Your task to perform on an android device: Open calendar and show me the first week of next month Image 0: 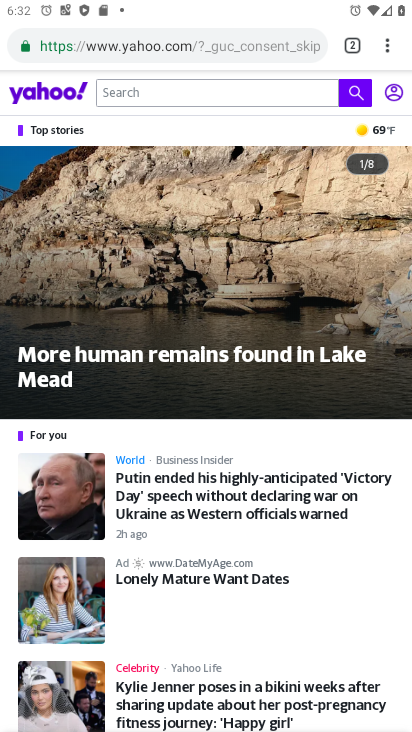
Step 0: press home button
Your task to perform on an android device: Open calendar and show me the first week of next month Image 1: 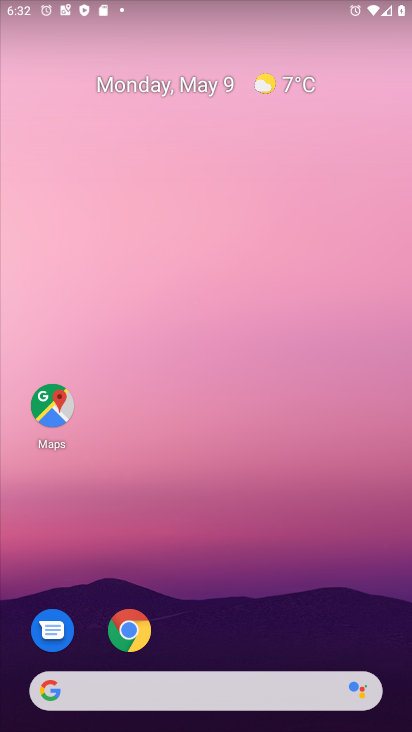
Step 1: drag from (292, 561) to (301, 81)
Your task to perform on an android device: Open calendar and show me the first week of next month Image 2: 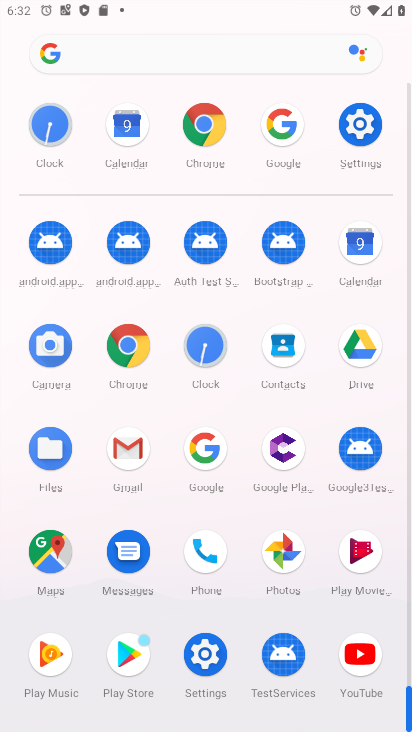
Step 2: click (352, 273)
Your task to perform on an android device: Open calendar and show me the first week of next month Image 3: 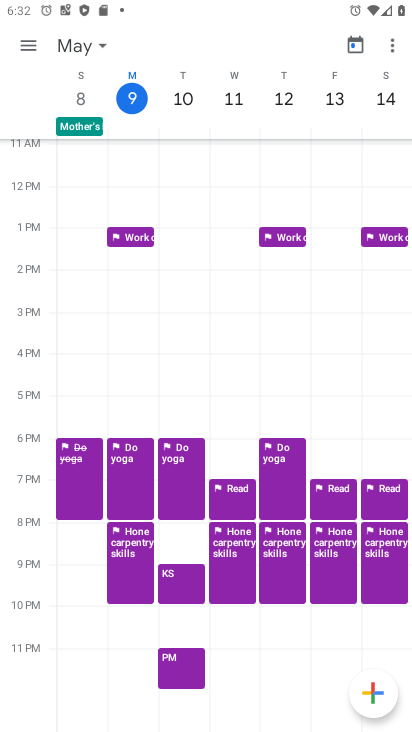
Step 3: click (81, 51)
Your task to perform on an android device: Open calendar and show me the first week of next month Image 4: 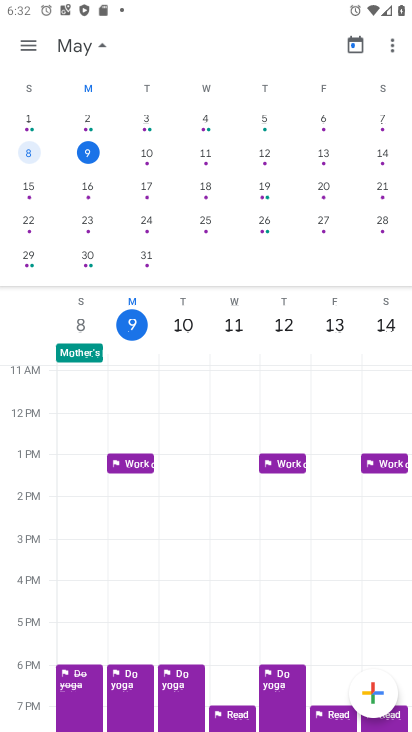
Step 4: drag from (323, 199) to (93, 203)
Your task to perform on an android device: Open calendar and show me the first week of next month Image 5: 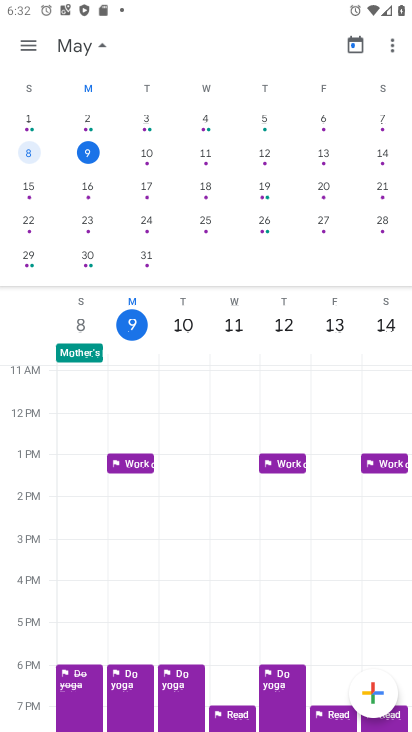
Step 5: drag from (346, 182) to (31, 183)
Your task to perform on an android device: Open calendar and show me the first week of next month Image 6: 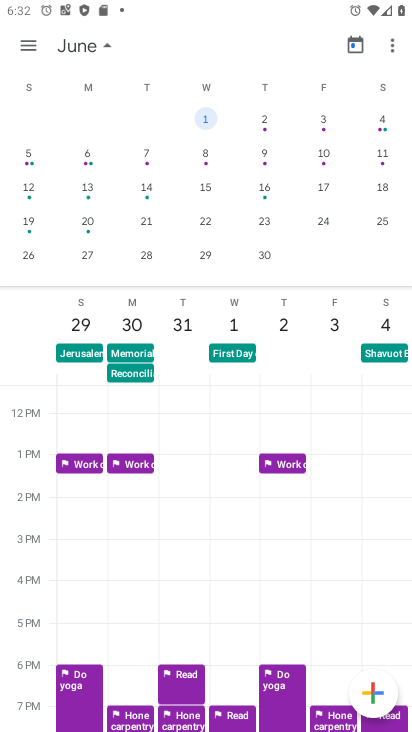
Step 6: click (34, 159)
Your task to perform on an android device: Open calendar and show me the first week of next month Image 7: 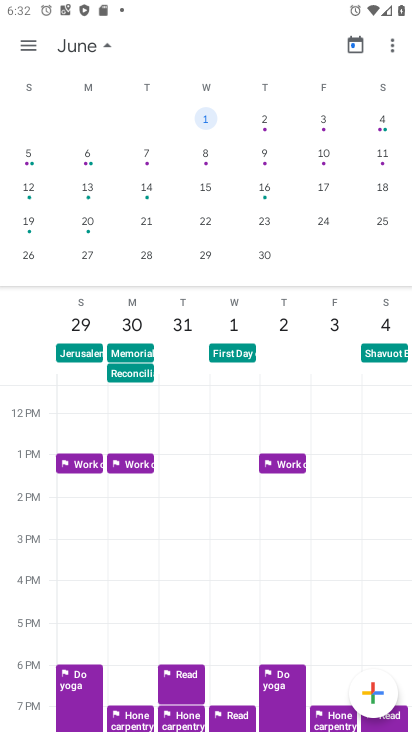
Step 7: click (34, 159)
Your task to perform on an android device: Open calendar and show me the first week of next month Image 8: 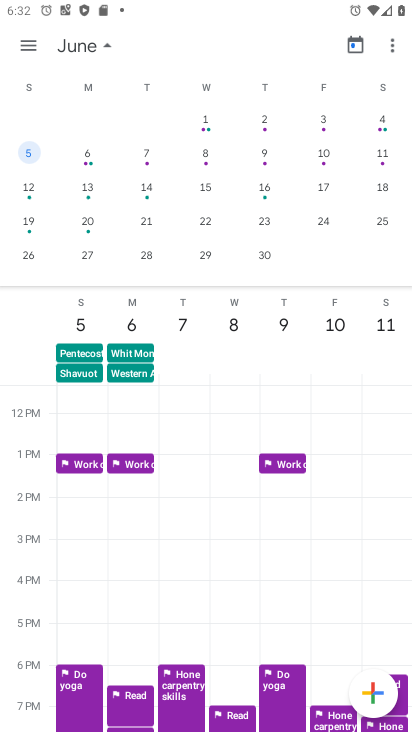
Step 8: task complete